Your task to perform on an android device: Open the map Image 0: 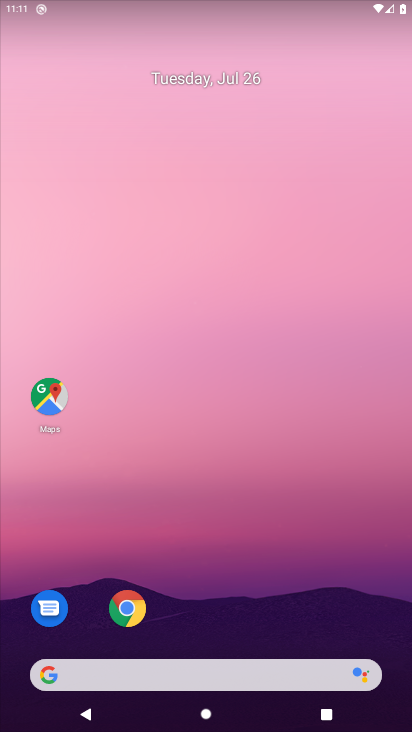
Step 0: drag from (168, 607) to (252, 37)
Your task to perform on an android device: Open the map Image 1: 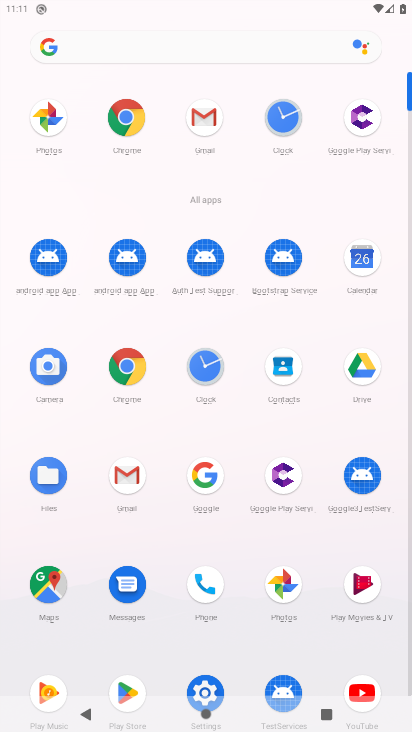
Step 1: click (45, 582)
Your task to perform on an android device: Open the map Image 2: 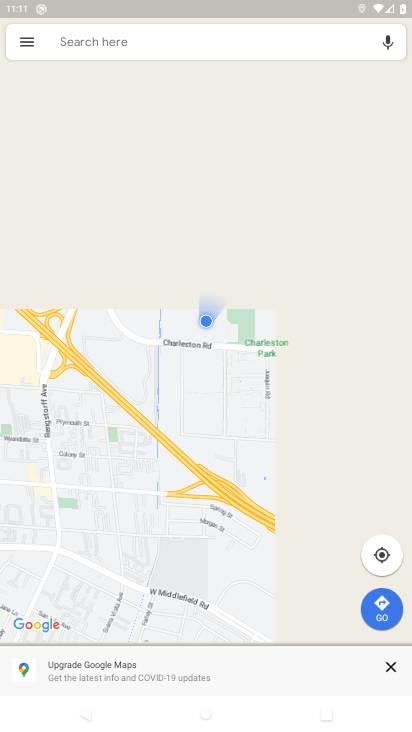
Step 2: task complete